Your task to perform on an android device: Go to notification settings Image 0: 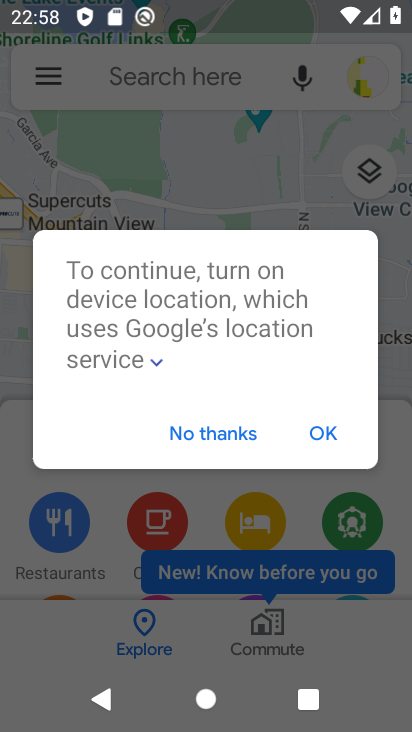
Step 0: press home button
Your task to perform on an android device: Go to notification settings Image 1: 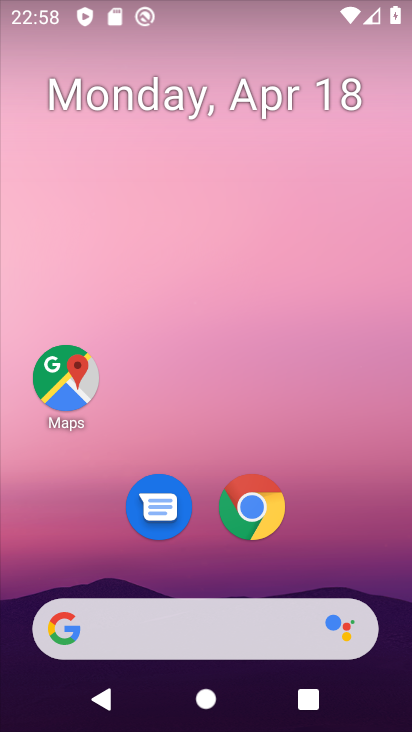
Step 1: drag from (354, 521) to (328, 84)
Your task to perform on an android device: Go to notification settings Image 2: 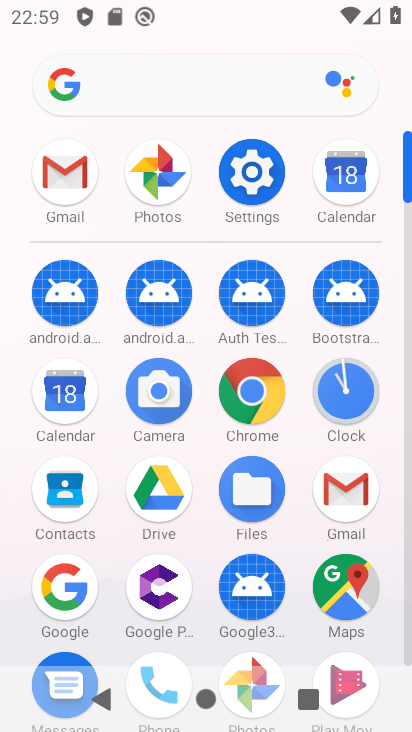
Step 2: click (276, 161)
Your task to perform on an android device: Go to notification settings Image 3: 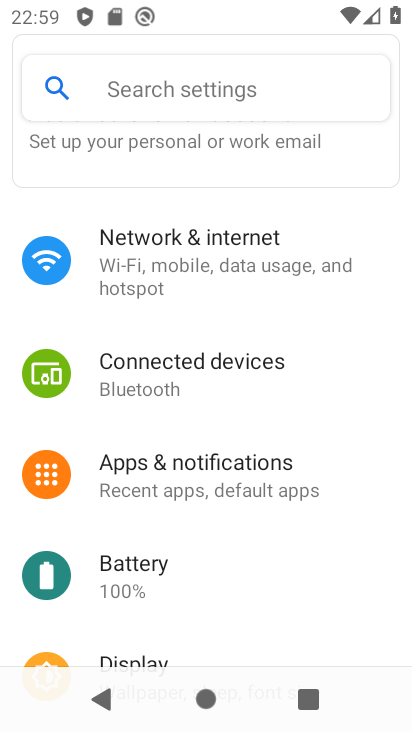
Step 3: click (241, 469)
Your task to perform on an android device: Go to notification settings Image 4: 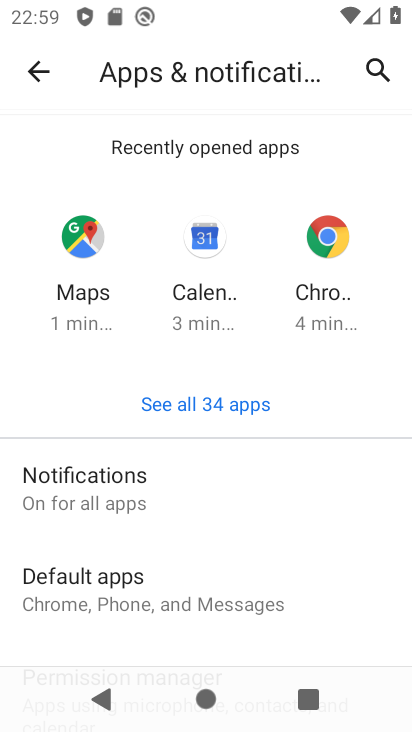
Step 4: task complete